Your task to perform on an android device: Clear all items from cart on newegg.com. Add panasonic triple a to the cart on newegg.com, then select checkout. Image 0: 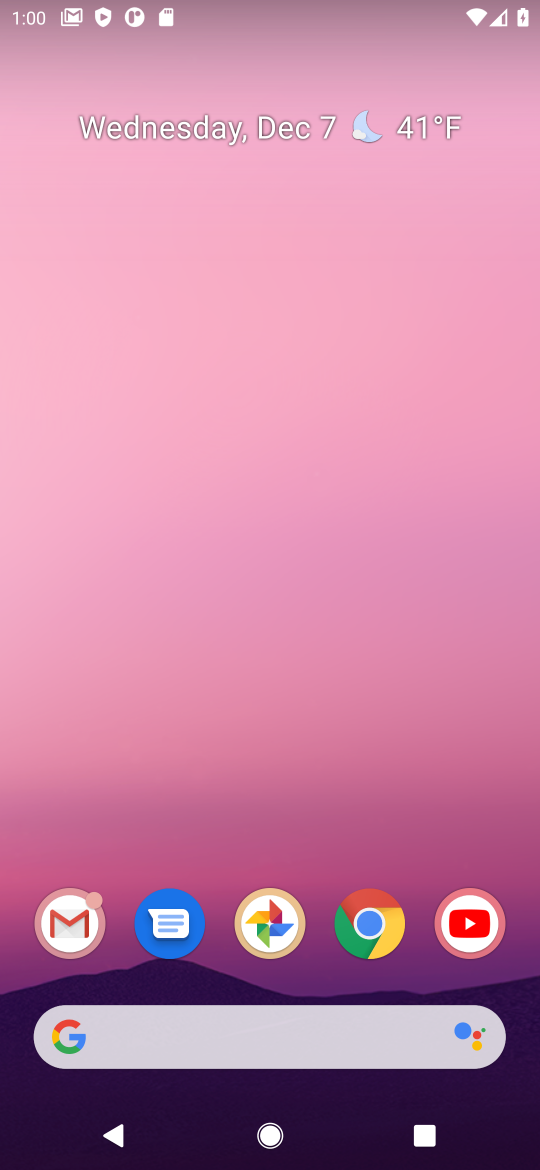
Step 0: task complete